Your task to perform on an android device: visit the assistant section in the google photos Image 0: 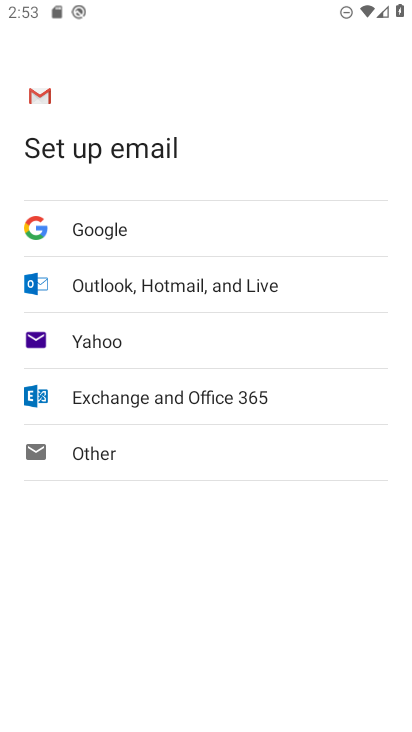
Step 0: press back button
Your task to perform on an android device: visit the assistant section in the google photos Image 1: 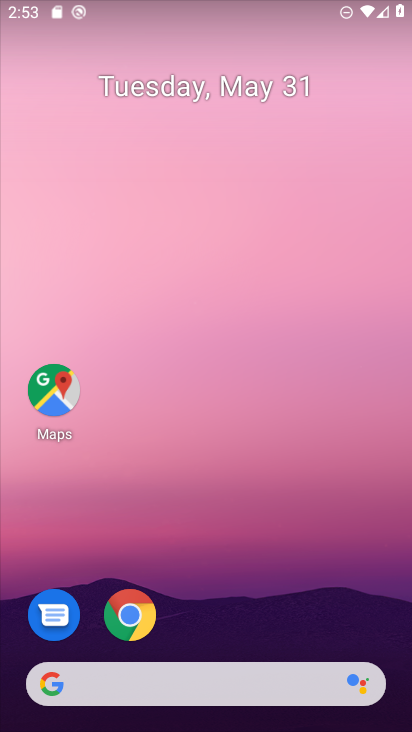
Step 1: drag from (303, 613) to (247, 49)
Your task to perform on an android device: visit the assistant section in the google photos Image 2: 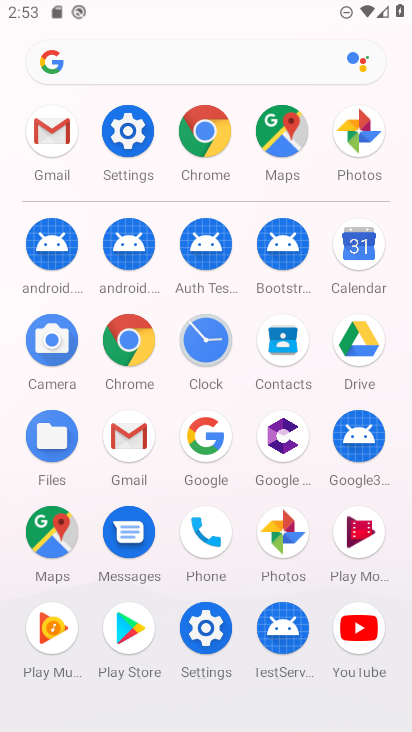
Step 2: click (270, 532)
Your task to perform on an android device: visit the assistant section in the google photos Image 3: 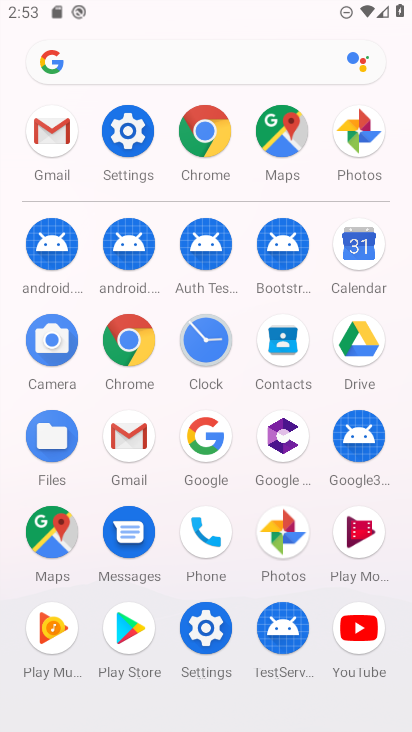
Step 3: click (273, 529)
Your task to perform on an android device: visit the assistant section in the google photos Image 4: 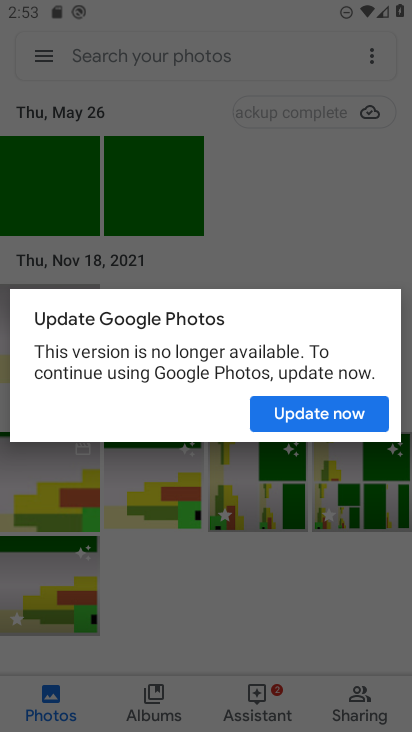
Step 4: click (281, 525)
Your task to perform on an android device: visit the assistant section in the google photos Image 5: 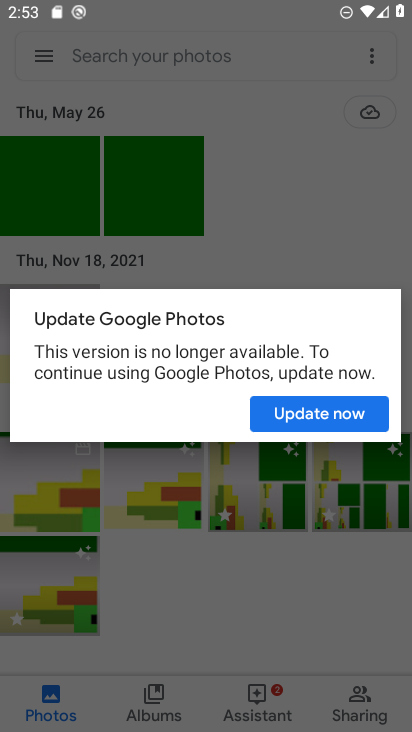
Step 5: click (302, 220)
Your task to perform on an android device: visit the assistant section in the google photos Image 6: 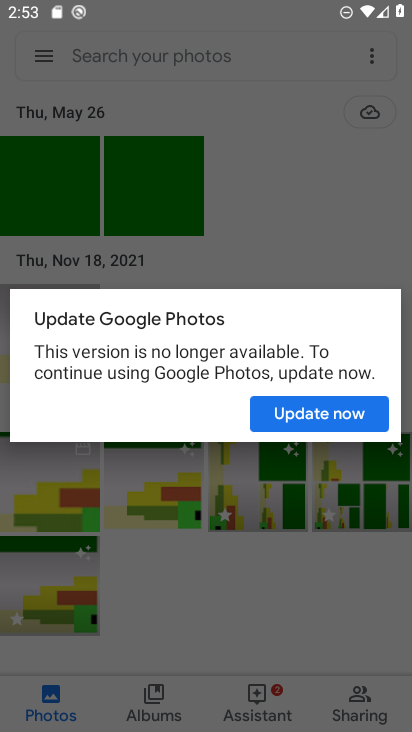
Step 6: click (304, 219)
Your task to perform on an android device: visit the assistant section in the google photos Image 7: 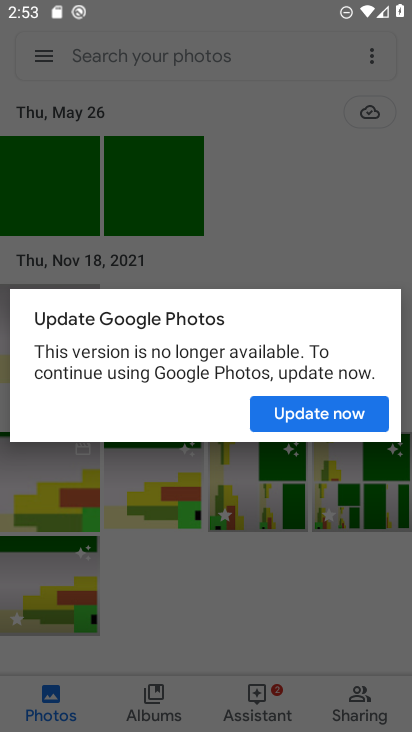
Step 7: click (297, 244)
Your task to perform on an android device: visit the assistant section in the google photos Image 8: 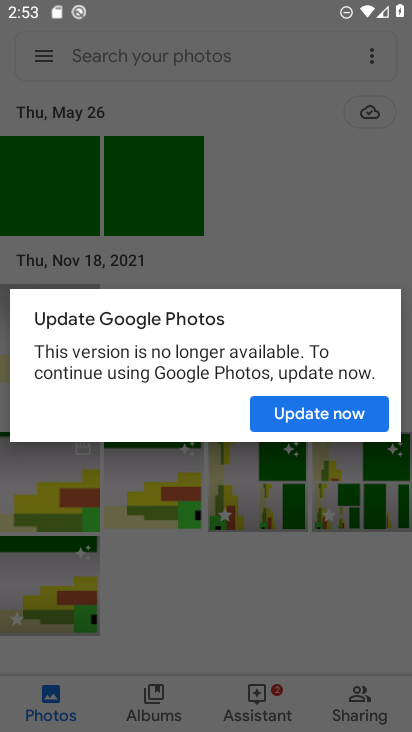
Step 8: click (296, 245)
Your task to perform on an android device: visit the assistant section in the google photos Image 9: 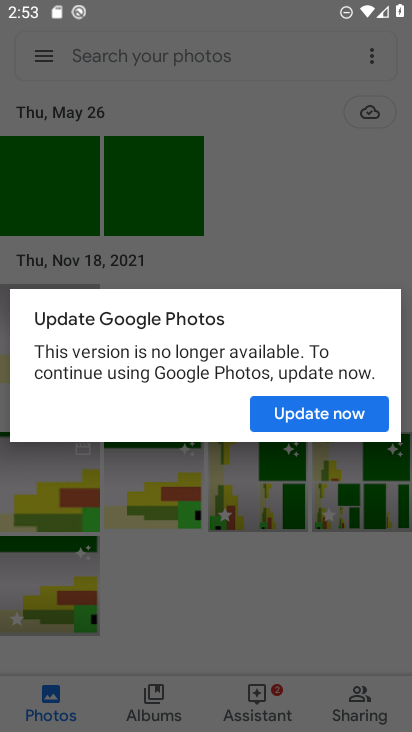
Step 9: click (296, 245)
Your task to perform on an android device: visit the assistant section in the google photos Image 10: 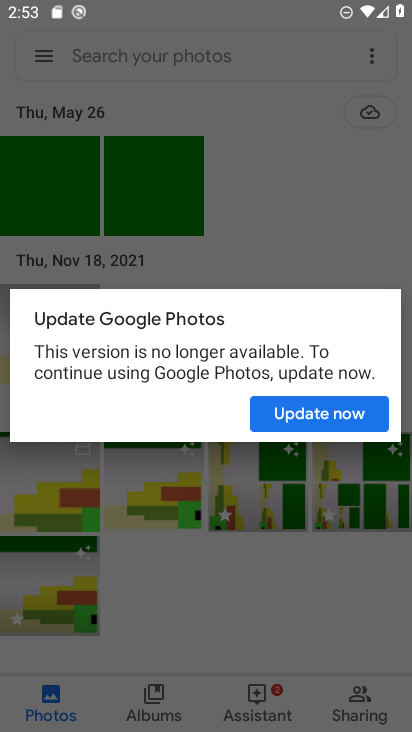
Step 10: click (292, 247)
Your task to perform on an android device: visit the assistant section in the google photos Image 11: 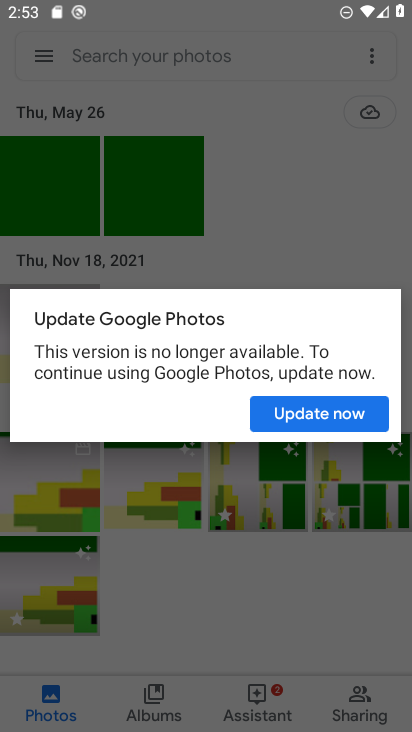
Step 11: click (282, 278)
Your task to perform on an android device: visit the assistant section in the google photos Image 12: 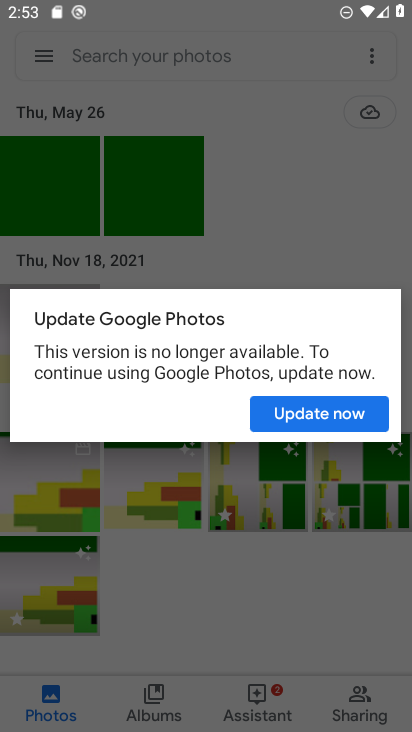
Step 12: press back button
Your task to perform on an android device: visit the assistant section in the google photos Image 13: 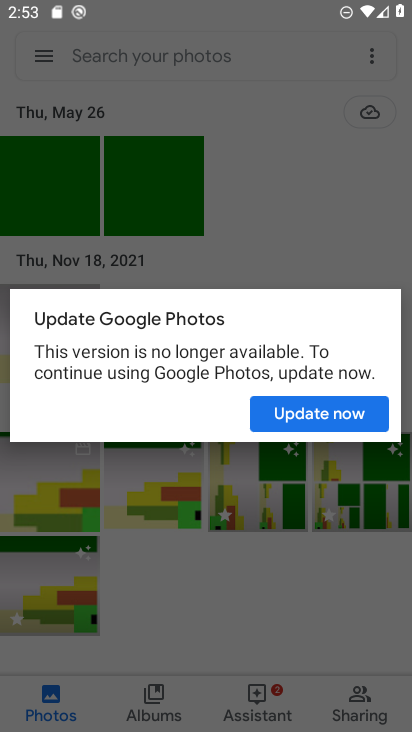
Step 13: press back button
Your task to perform on an android device: visit the assistant section in the google photos Image 14: 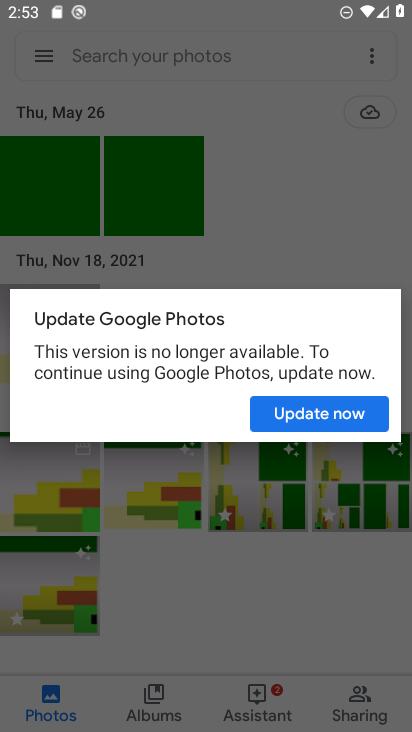
Step 14: click (326, 408)
Your task to perform on an android device: visit the assistant section in the google photos Image 15: 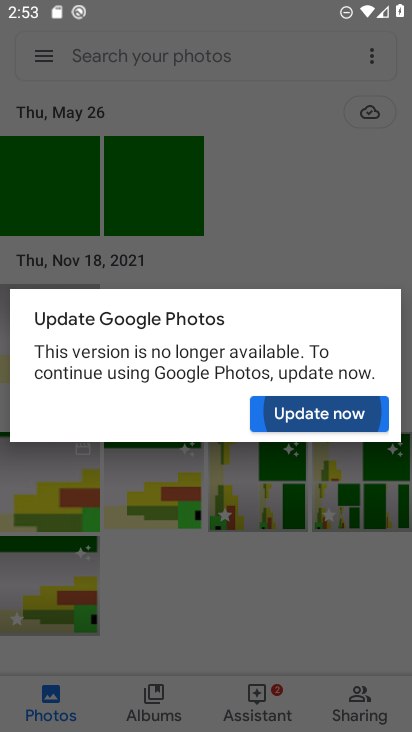
Step 15: click (326, 408)
Your task to perform on an android device: visit the assistant section in the google photos Image 16: 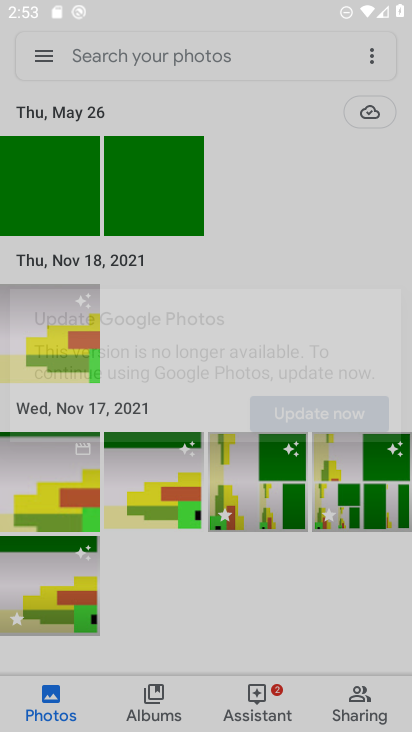
Step 16: click (326, 408)
Your task to perform on an android device: visit the assistant section in the google photos Image 17: 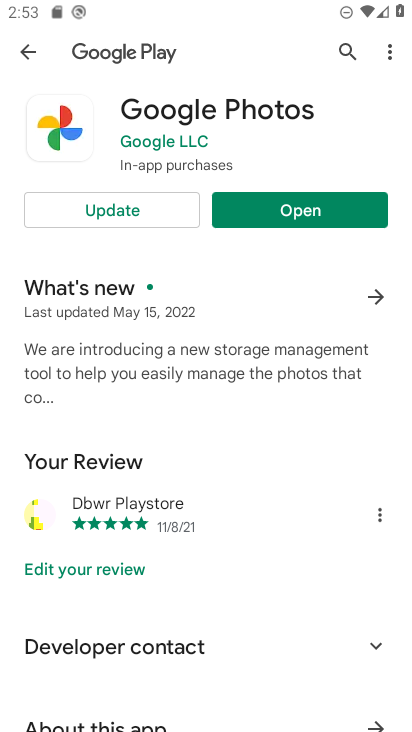
Step 17: press back button
Your task to perform on an android device: visit the assistant section in the google photos Image 18: 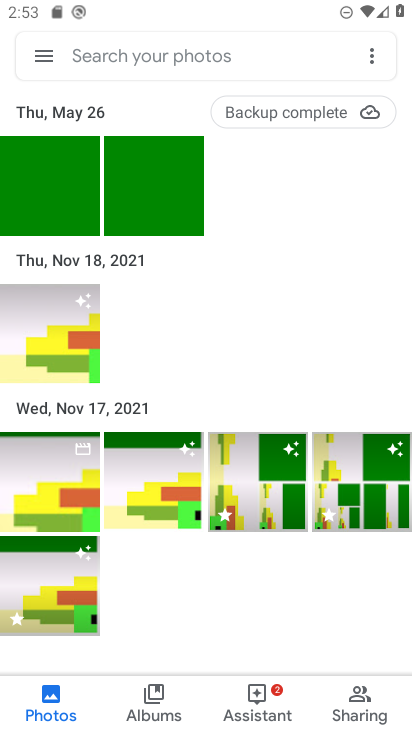
Step 18: click (260, 686)
Your task to perform on an android device: visit the assistant section in the google photos Image 19: 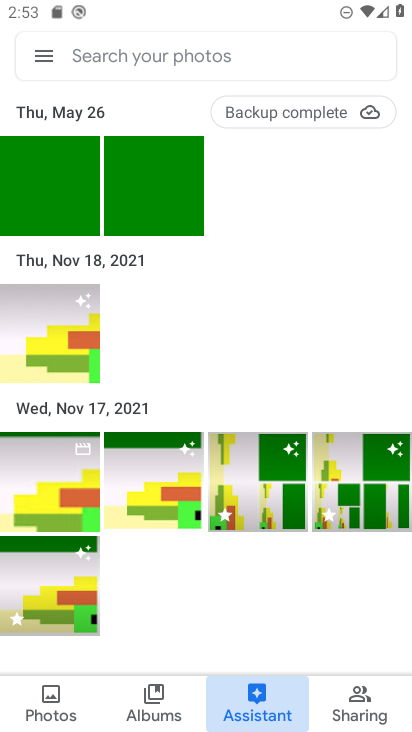
Step 19: click (274, 694)
Your task to perform on an android device: visit the assistant section in the google photos Image 20: 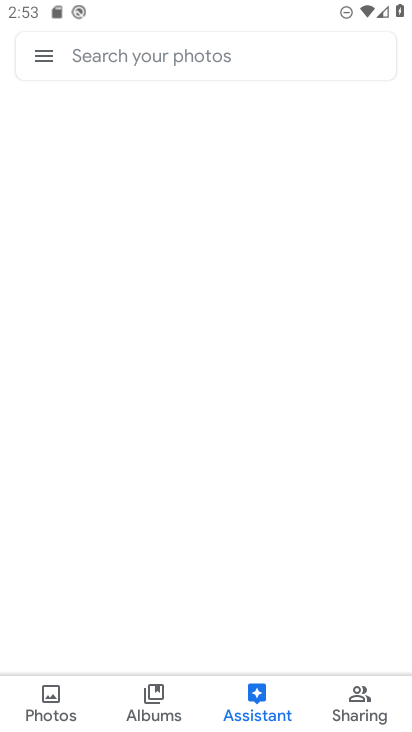
Step 20: task complete